Your task to perform on an android device: all mails in gmail Image 0: 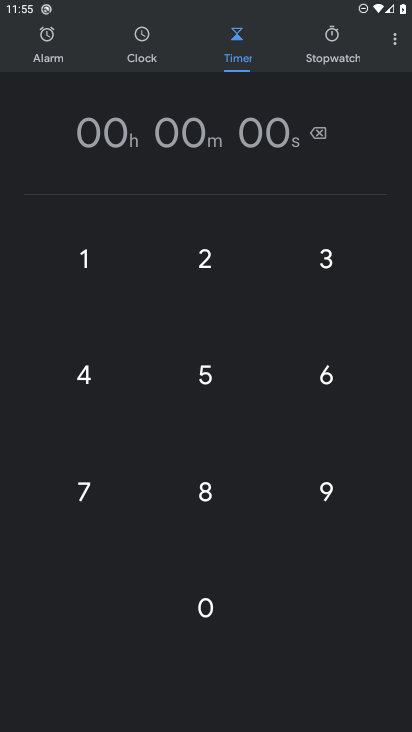
Step 0: press home button
Your task to perform on an android device: all mails in gmail Image 1: 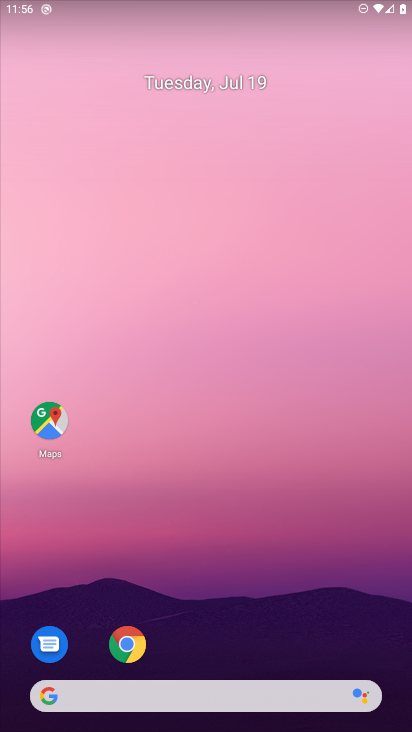
Step 1: drag from (111, 556) to (264, 191)
Your task to perform on an android device: all mails in gmail Image 2: 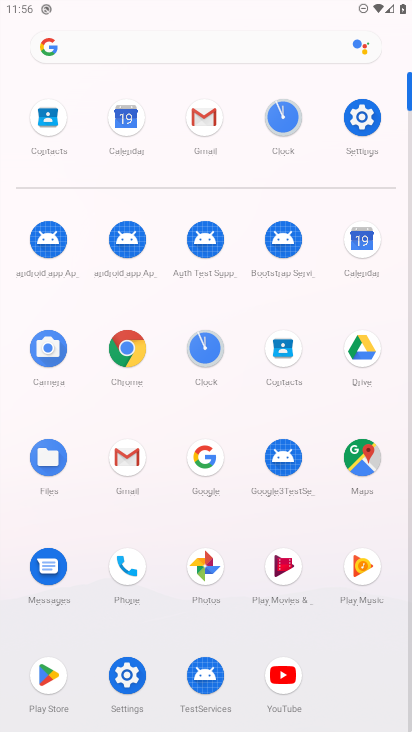
Step 2: click (118, 462)
Your task to perform on an android device: all mails in gmail Image 3: 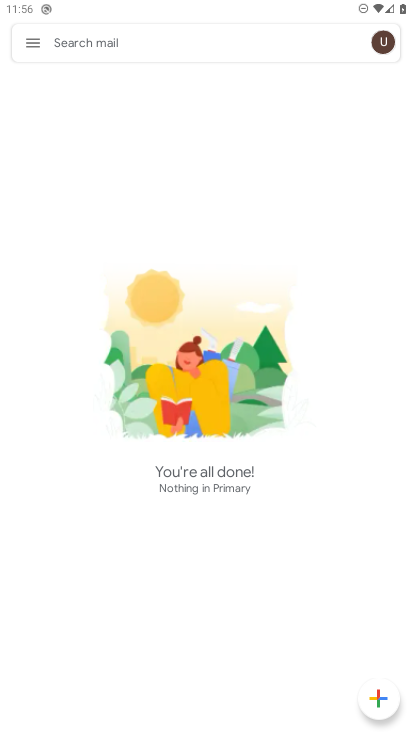
Step 3: click (38, 45)
Your task to perform on an android device: all mails in gmail Image 4: 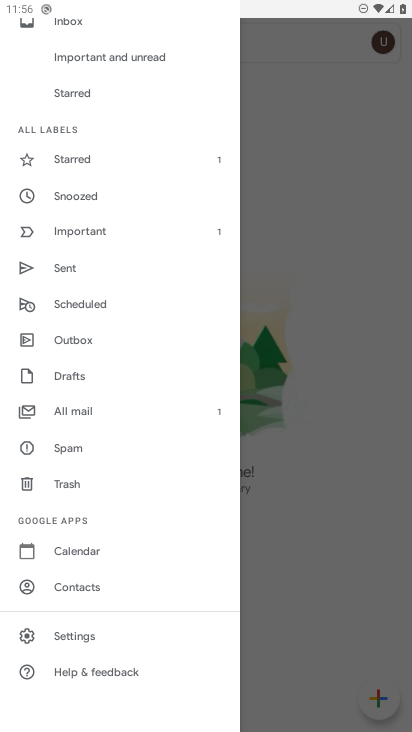
Step 4: click (93, 415)
Your task to perform on an android device: all mails in gmail Image 5: 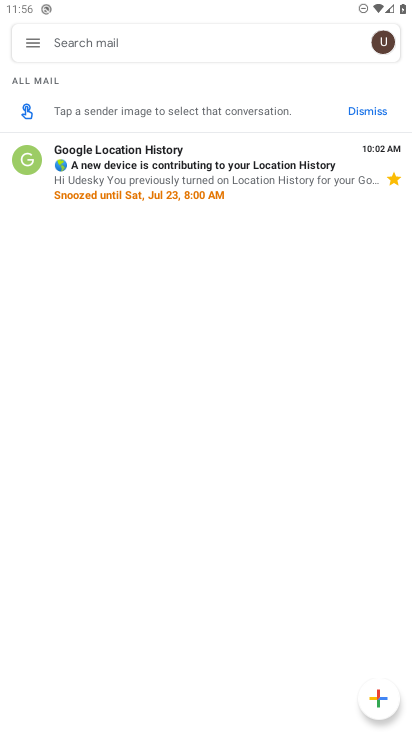
Step 5: task complete